Your task to perform on an android device: Turn on the flashlight Image 0: 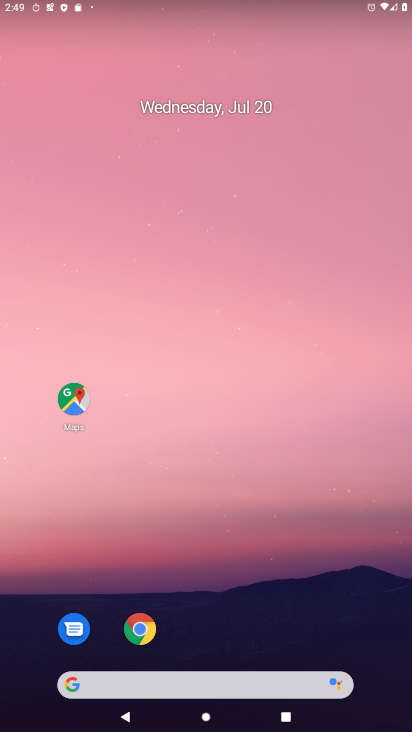
Step 0: press home button
Your task to perform on an android device: Turn on the flashlight Image 1: 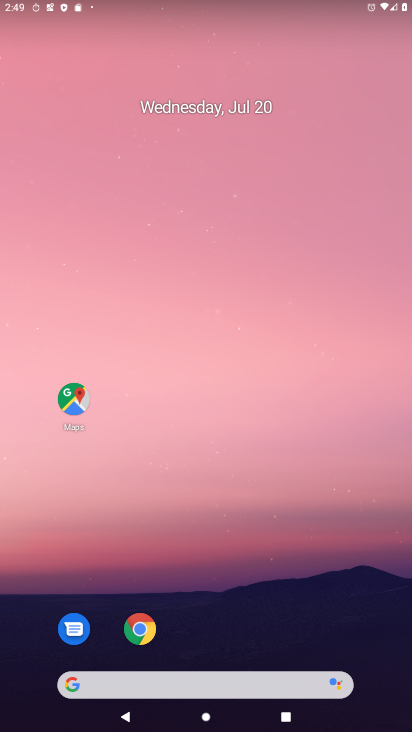
Step 1: drag from (224, 184) to (220, 37)
Your task to perform on an android device: Turn on the flashlight Image 2: 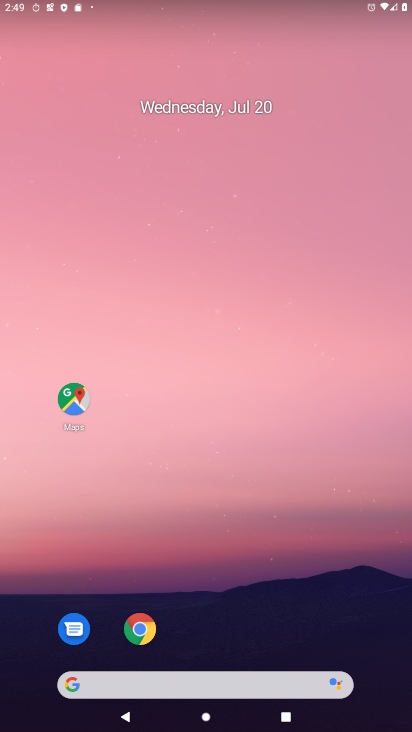
Step 2: drag from (218, 645) to (257, 27)
Your task to perform on an android device: Turn on the flashlight Image 3: 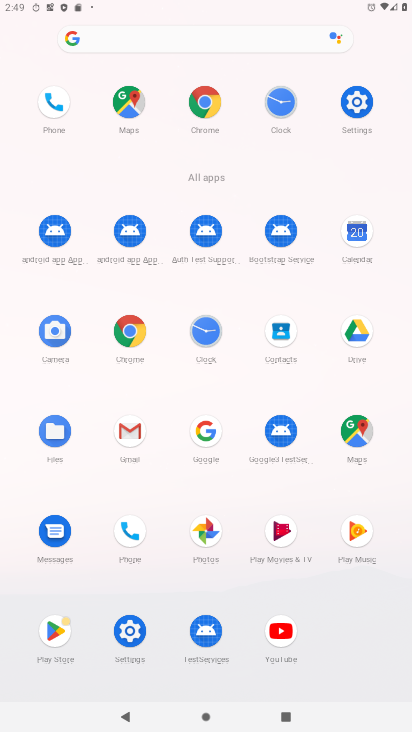
Step 3: click (351, 93)
Your task to perform on an android device: Turn on the flashlight Image 4: 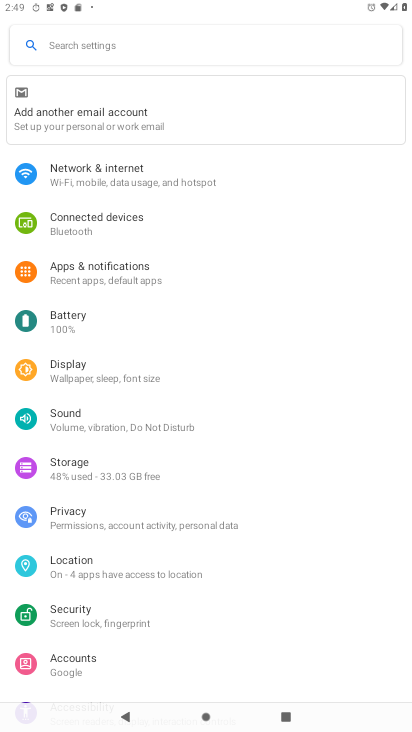
Step 4: click (90, 42)
Your task to perform on an android device: Turn on the flashlight Image 5: 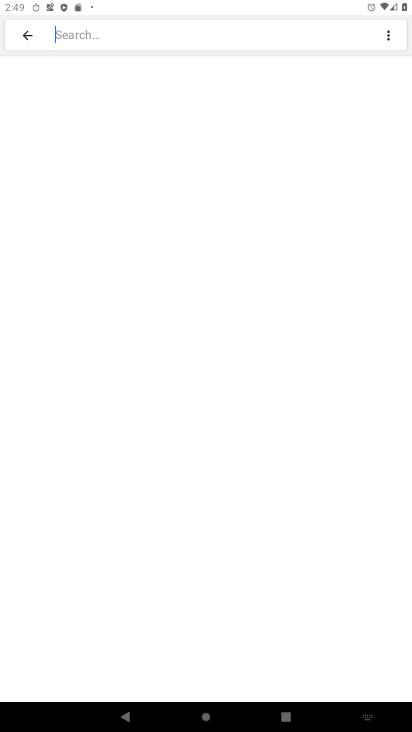
Step 5: type "flashlight"
Your task to perform on an android device: Turn on the flashlight Image 6: 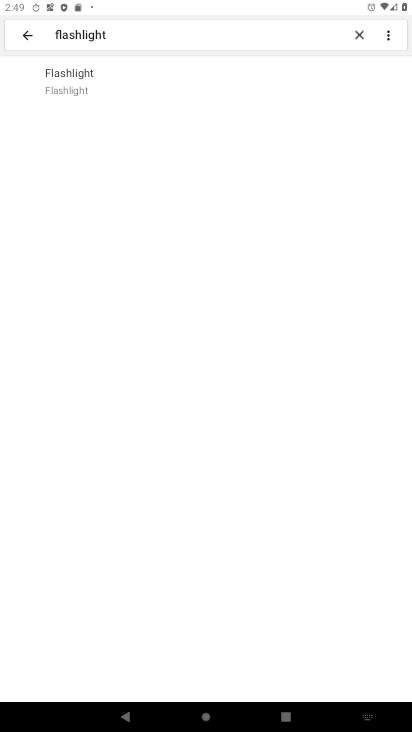
Step 6: click (103, 73)
Your task to perform on an android device: Turn on the flashlight Image 7: 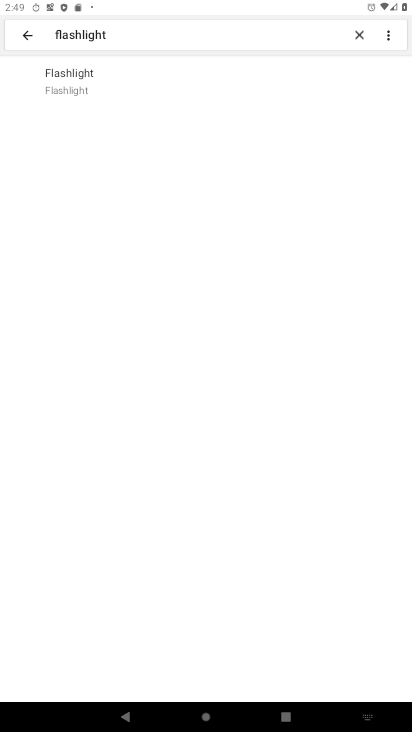
Step 7: click (102, 78)
Your task to perform on an android device: Turn on the flashlight Image 8: 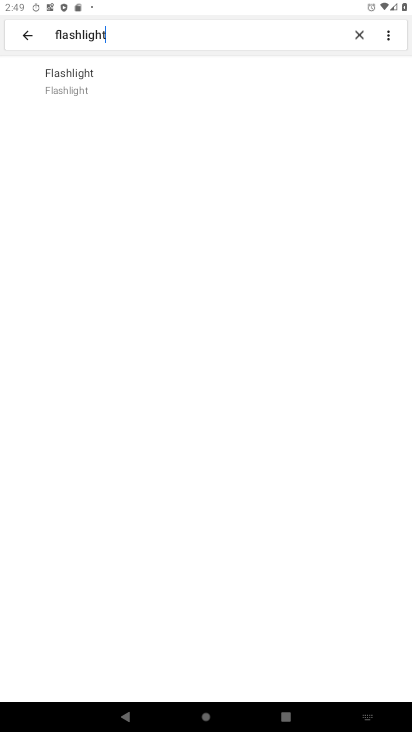
Step 8: task complete